Your task to perform on an android device: Open maps Image 0: 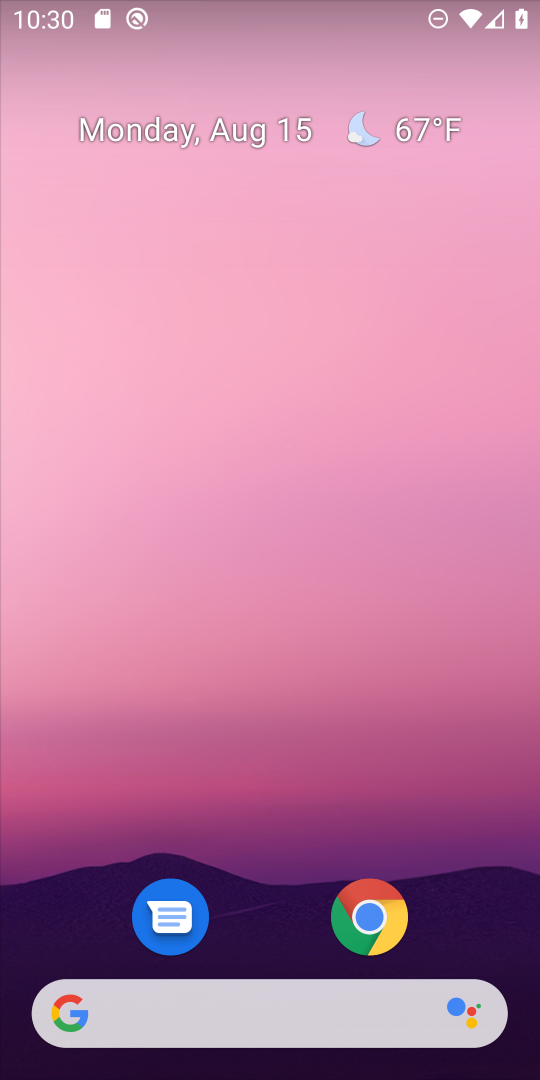
Step 0: drag from (257, 858) to (308, 0)
Your task to perform on an android device: Open maps Image 1: 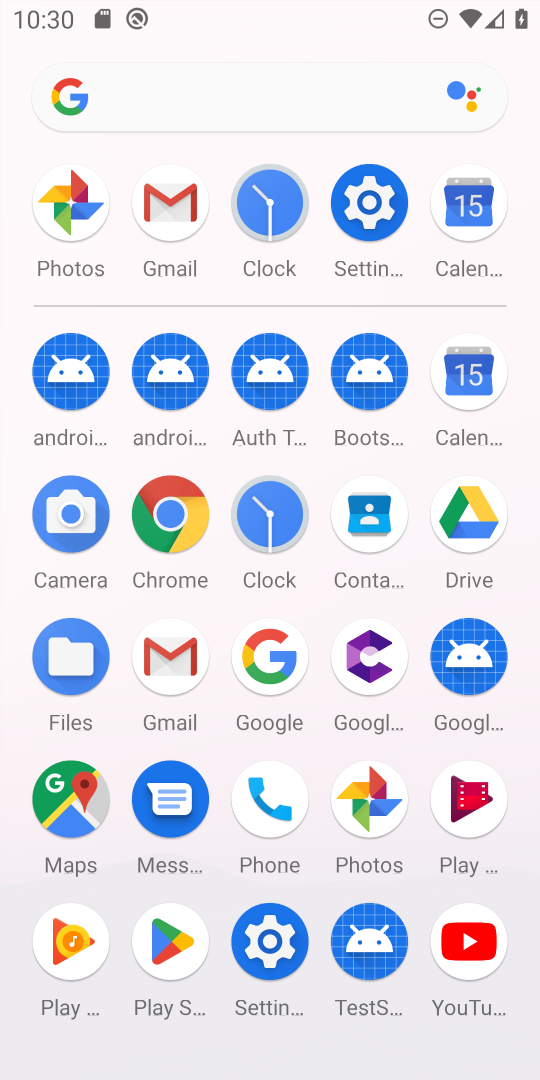
Step 1: click (73, 807)
Your task to perform on an android device: Open maps Image 2: 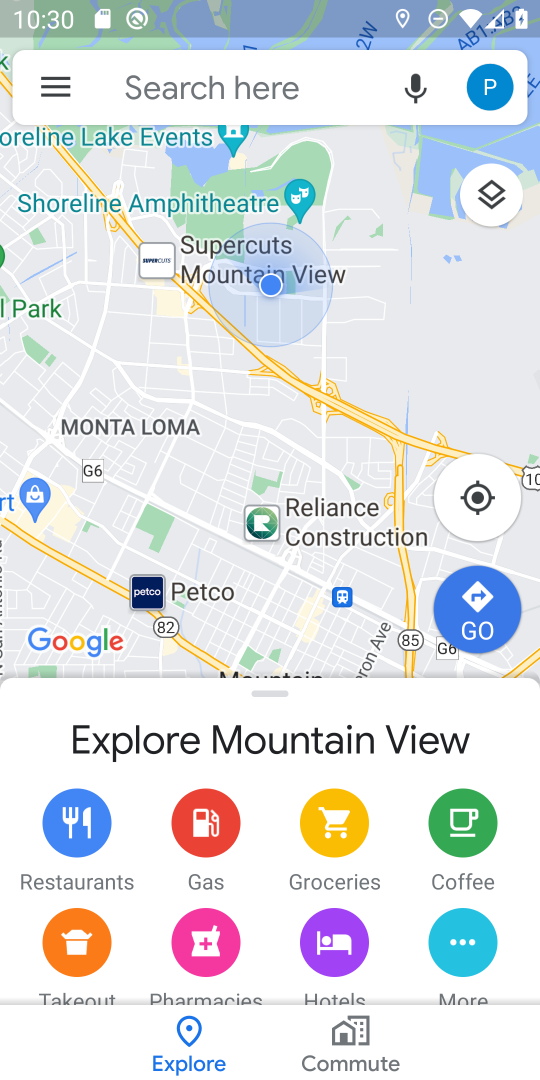
Step 2: task complete